Your task to perform on an android device: find which apps use the phone's location Image 0: 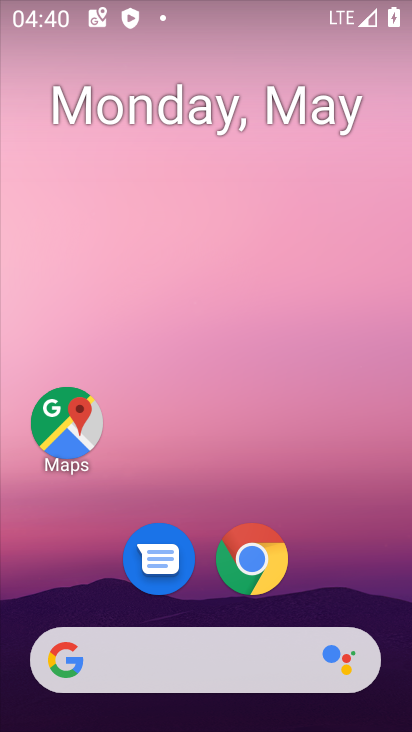
Step 0: drag from (346, 619) to (353, 31)
Your task to perform on an android device: find which apps use the phone's location Image 1: 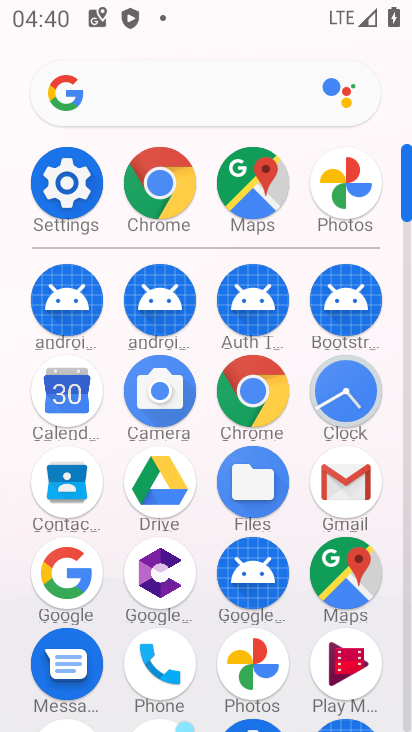
Step 1: click (77, 176)
Your task to perform on an android device: find which apps use the phone's location Image 2: 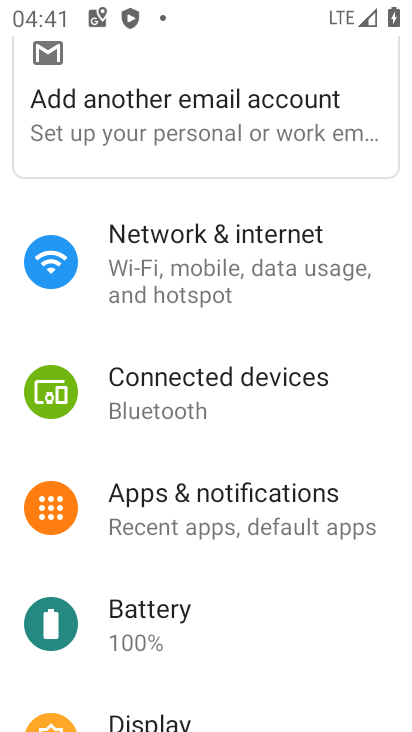
Step 2: drag from (261, 640) to (272, 94)
Your task to perform on an android device: find which apps use the phone's location Image 3: 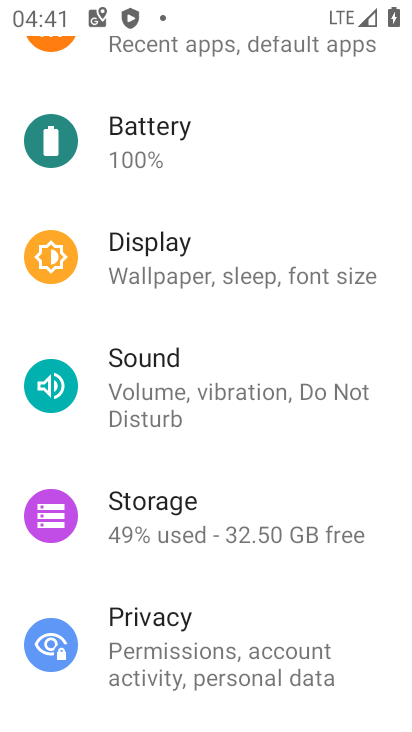
Step 3: drag from (212, 635) to (245, 198)
Your task to perform on an android device: find which apps use the phone's location Image 4: 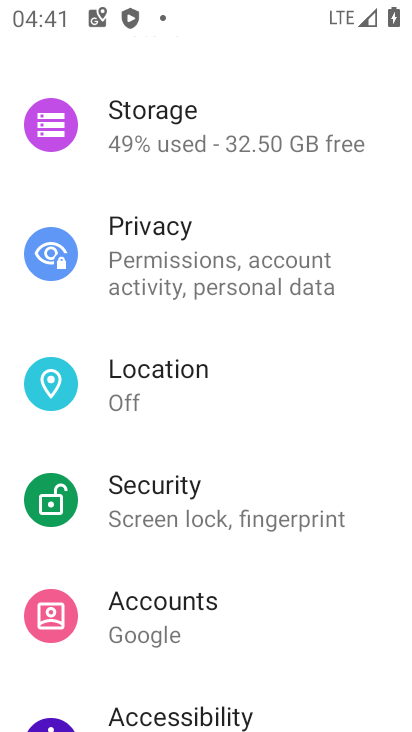
Step 4: click (222, 382)
Your task to perform on an android device: find which apps use the phone's location Image 5: 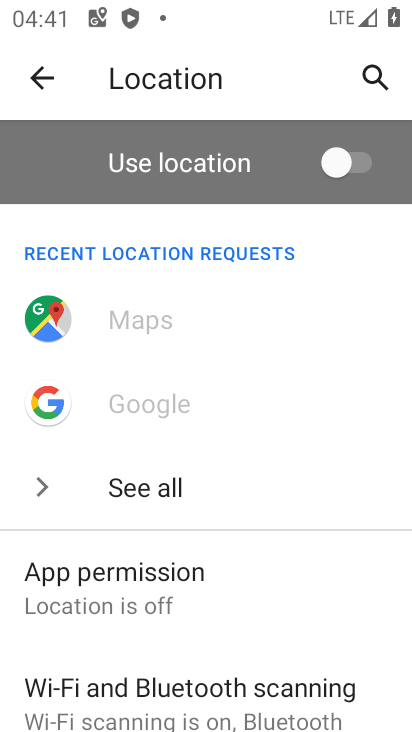
Step 5: drag from (283, 674) to (322, 238)
Your task to perform on an android device: find which apps use the phone's location Image 6: 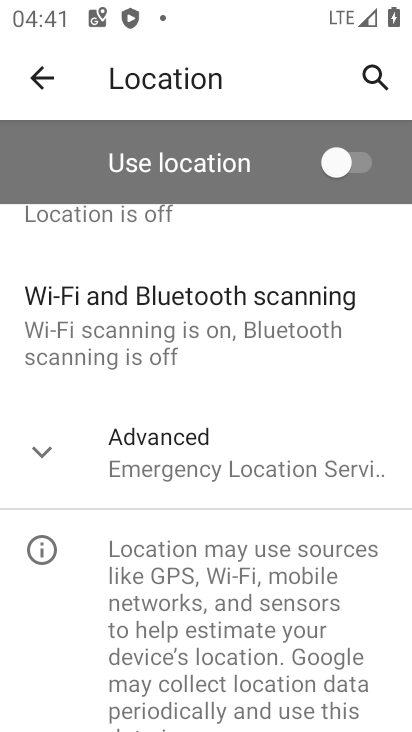
Step 6: drag from (281, 300) to (211, 708)
Your task to perform on an android device: find which apps use the phone's location Image 7: 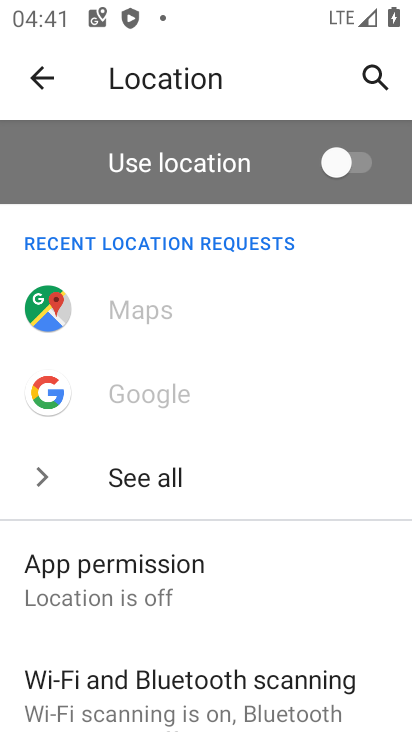
Step 7: click (198, 594)
Your task to perform on an android device: find which apps use the phone's location Image 8: 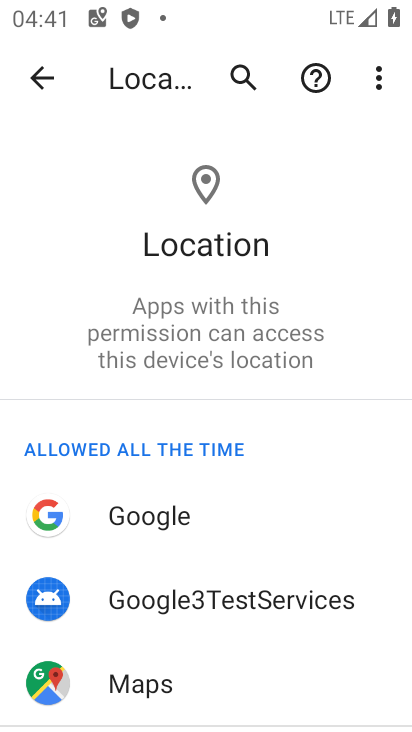
Step 8: task complete